Your task to perform on an android device: add a contact Image 0: 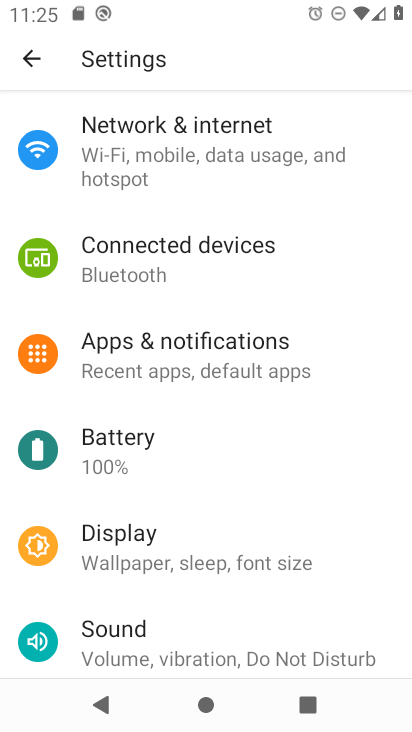
Step 0: press back button
Your task to perform on an android device: add a contact Image 1: 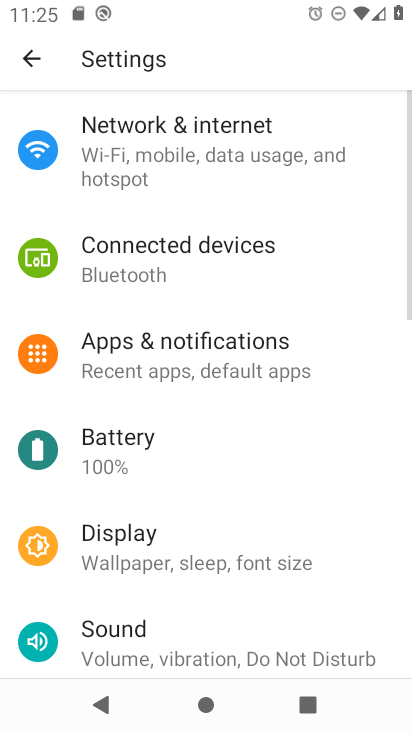
Step 1: press home button
Your task to perform on an android device: add a contact Image 2: 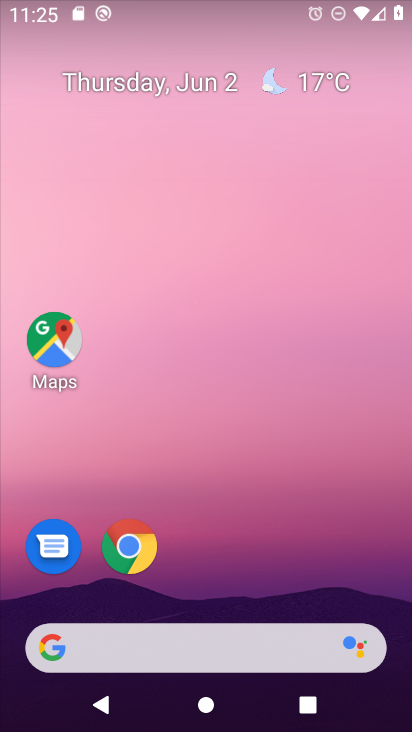
Step 2: drag from (272, 292) to (271, 20)
Your task to perform on an android device: add a contact Image 3: 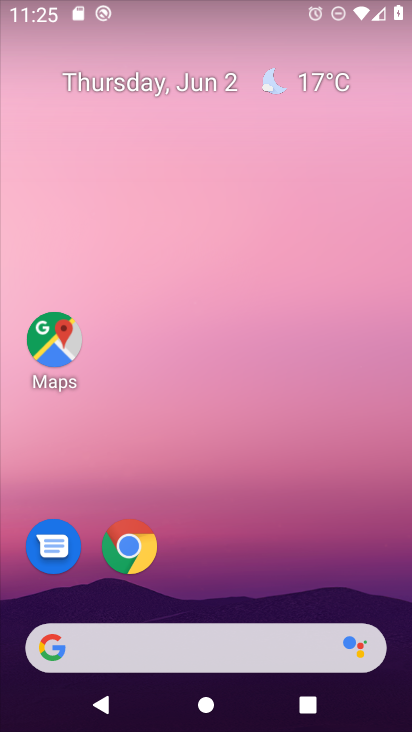
Step 3: drag from (223, 489) to (191, 0)
Your task to perform on an android device: add a contact Image 4: 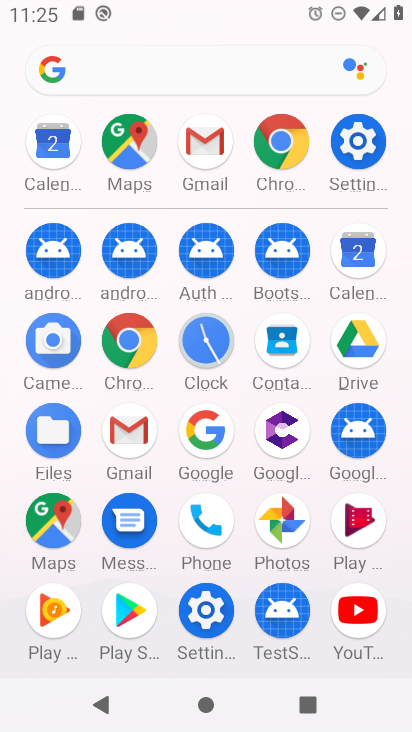
Step 4: drag from (17, 532) to (19, 244)
Your task to perform on an android device: add a contact Image 5: 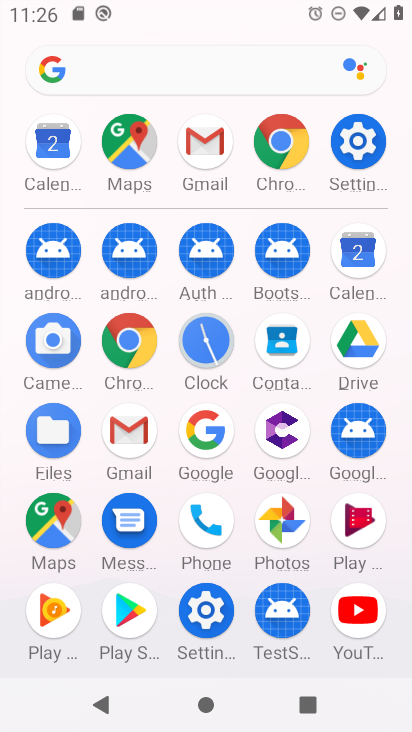
Step 5: click (282, 339)
Your task to perform on an android device: add a contact Image 6: 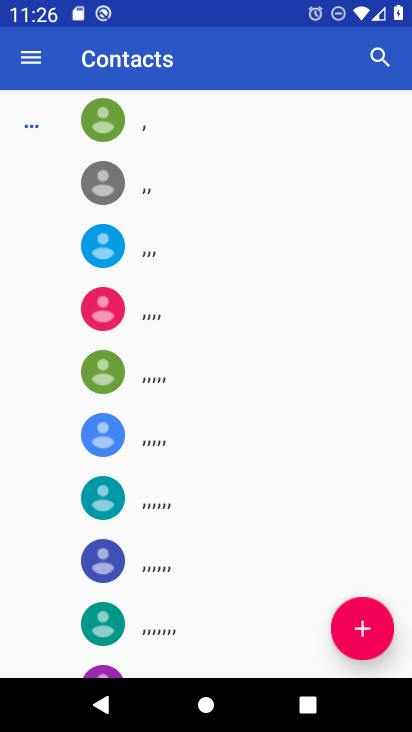
Step 6: click (359, 619)
Your task to perform on an android device: add a contact Image 7: 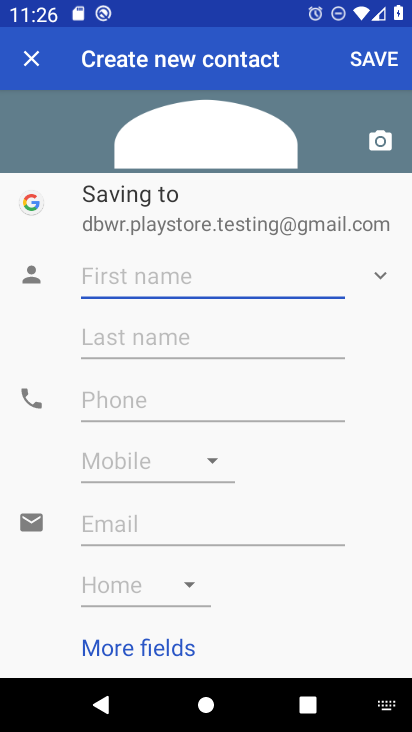
Step 7: type "Dghjk"
Your task to perform on an android device: add a contact Image 8: 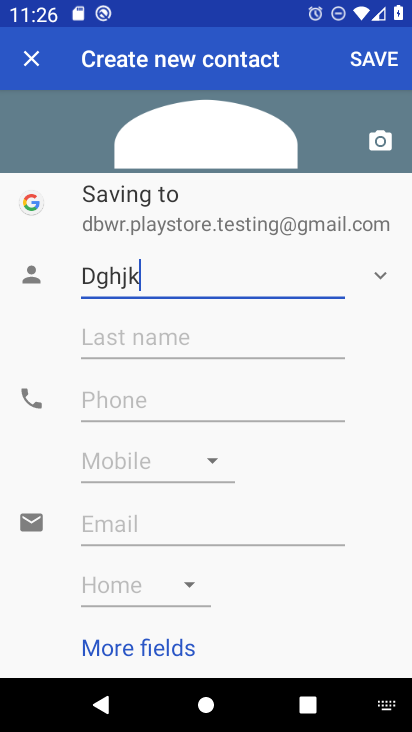
Step 8: type ""
Your task to perform on an android device: add a contact Image 9: 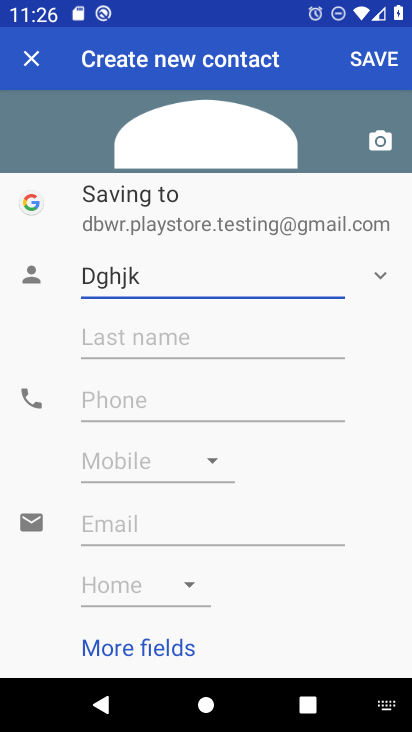
Step 9: click (163, 398)
Your task to perform on an android device: add a contact Image 10: 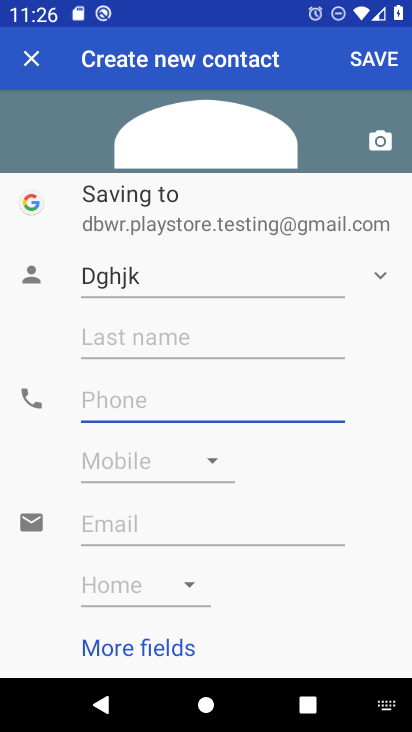
Step 10: type "3456789"
Your task to perform on an android device: add a contact Image 11: 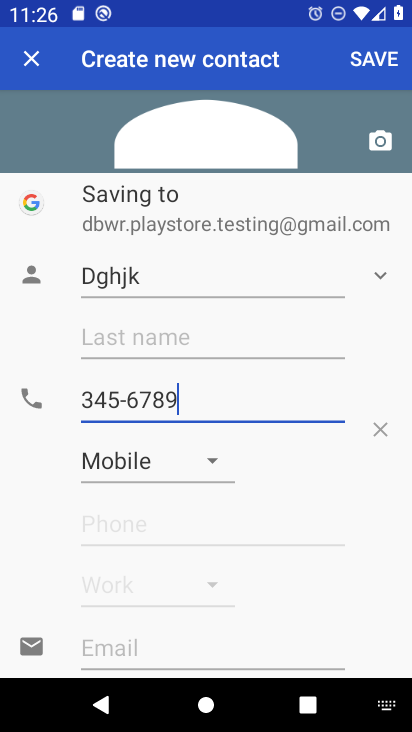
Step 11: type ""
Your task to perform on an android device: add a contact Image 12: 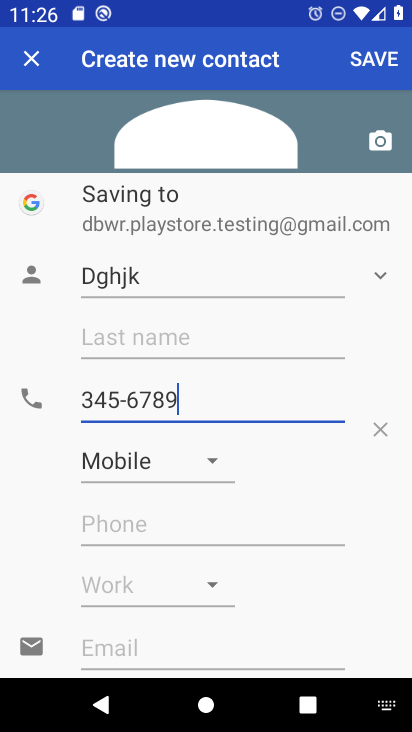
Step 12: click (377, 57)
Your task to perform on an android device: add a contact Image 13: 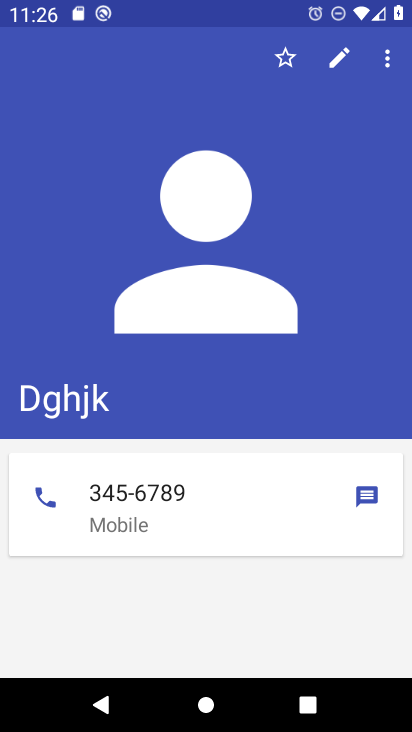
Step 13: task complete